Your task to perform on an android device: open app "VLC for Android" (install if not already installed) Image 0: 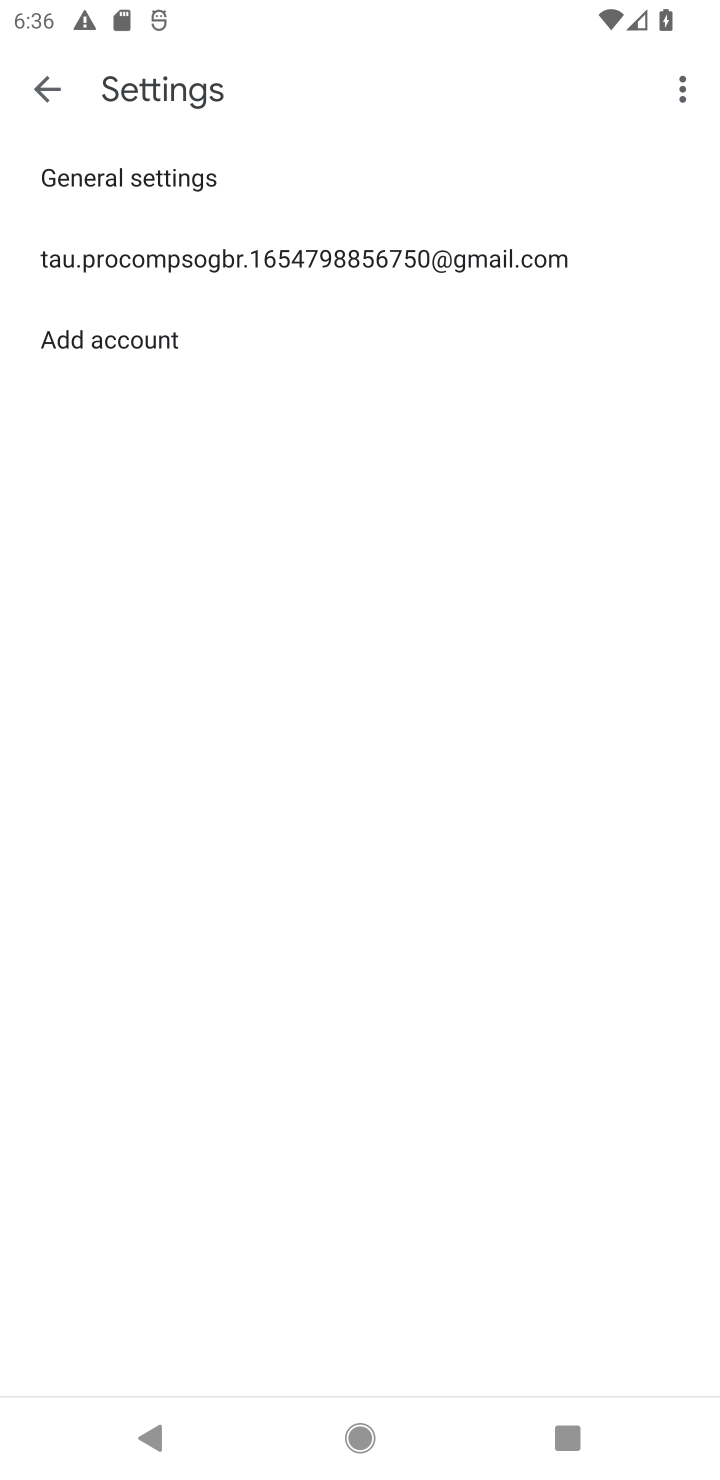
Step 0: press home button
Your task to perform on an android device: open app "VLC for Android" (install if not already installed) Image 1: 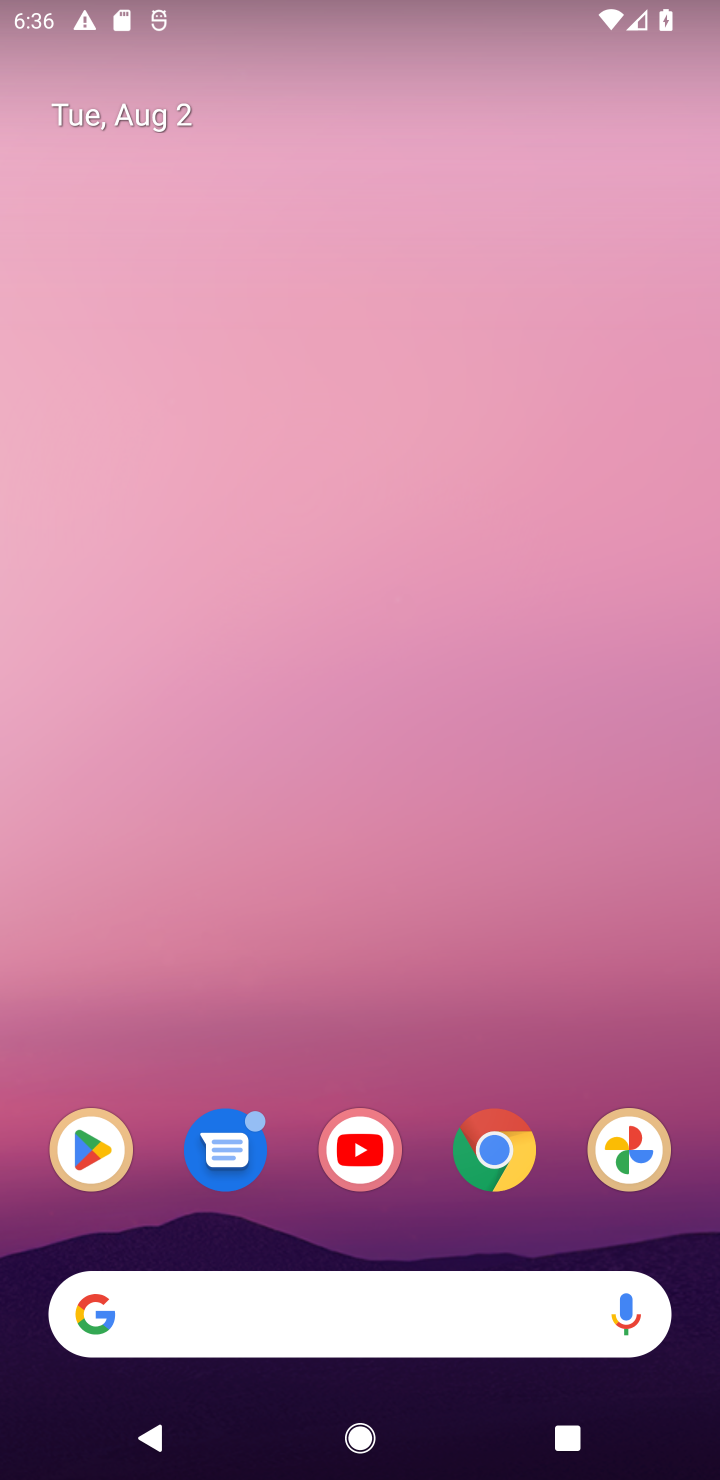
Step 1: drag from (399, 1198) to (346, 4)
Your task to perform on an android device: open app "VLC for Android" (install if not already installed) Image 2: 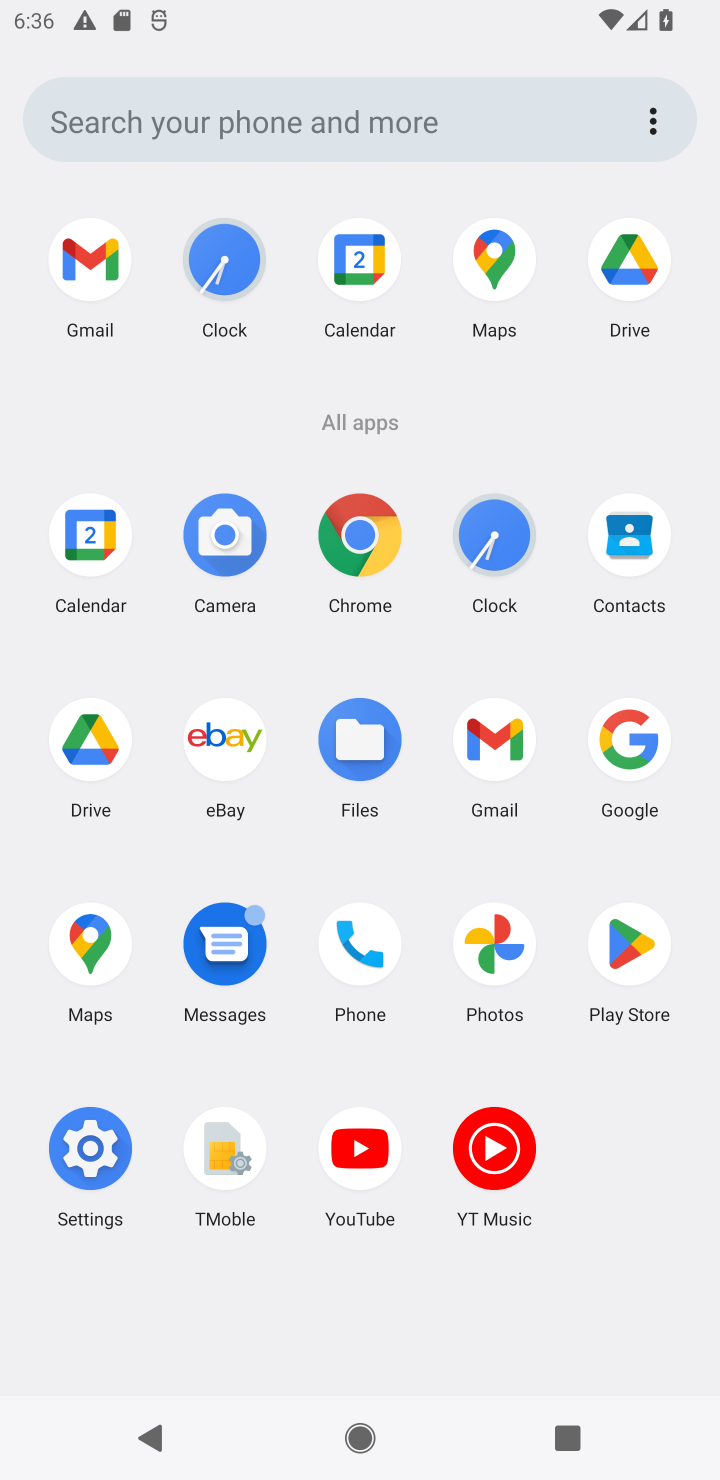
Step 2: click (611, 923)
Your task to perform on an android device: open app "VLC for Android" (install if not already installed) Image 3: 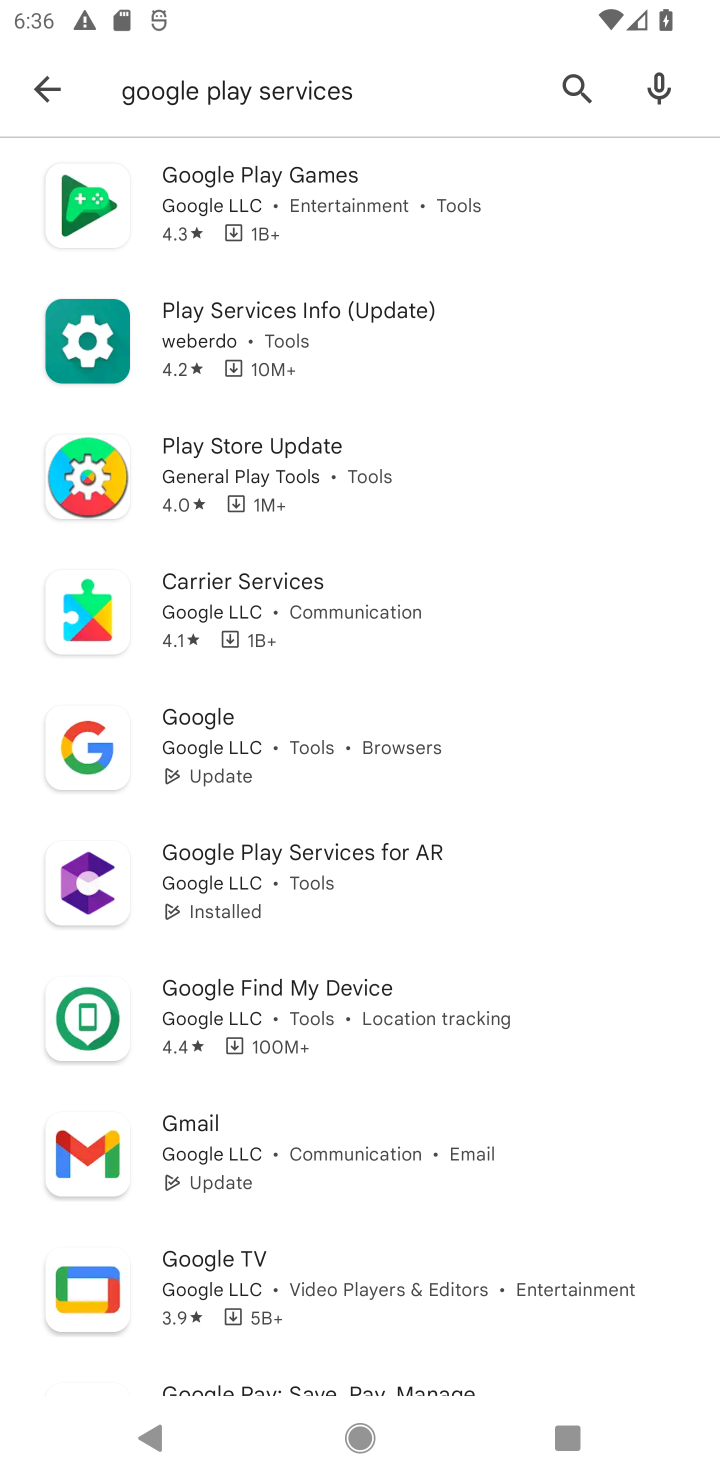
Step 3: click (51, 76)
Your task to perform on an android device: open app "VLC for Android" (install if not already installed) Image 4: 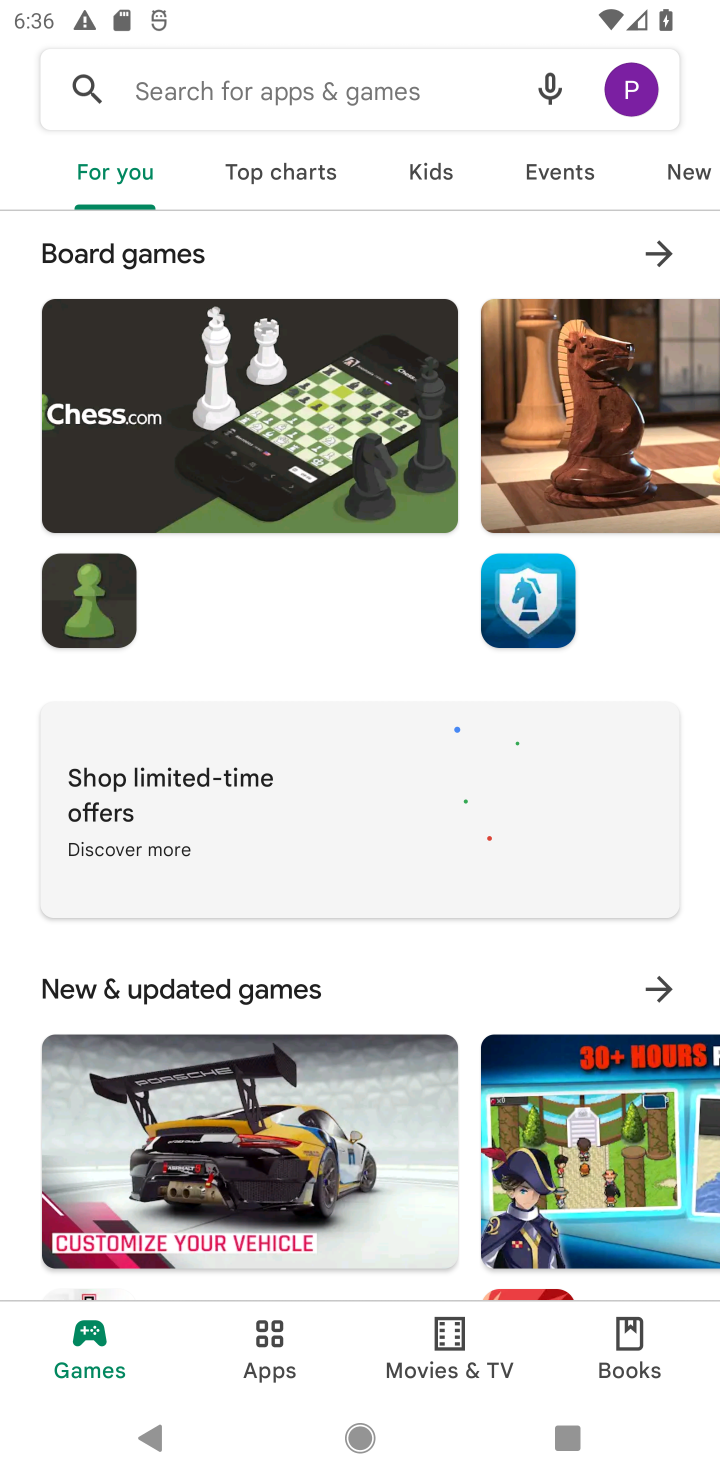
Step 4: click (154, 95)
Your task to perform on an android device: open app "VLC for Android" (install if not already installed) Image 5: 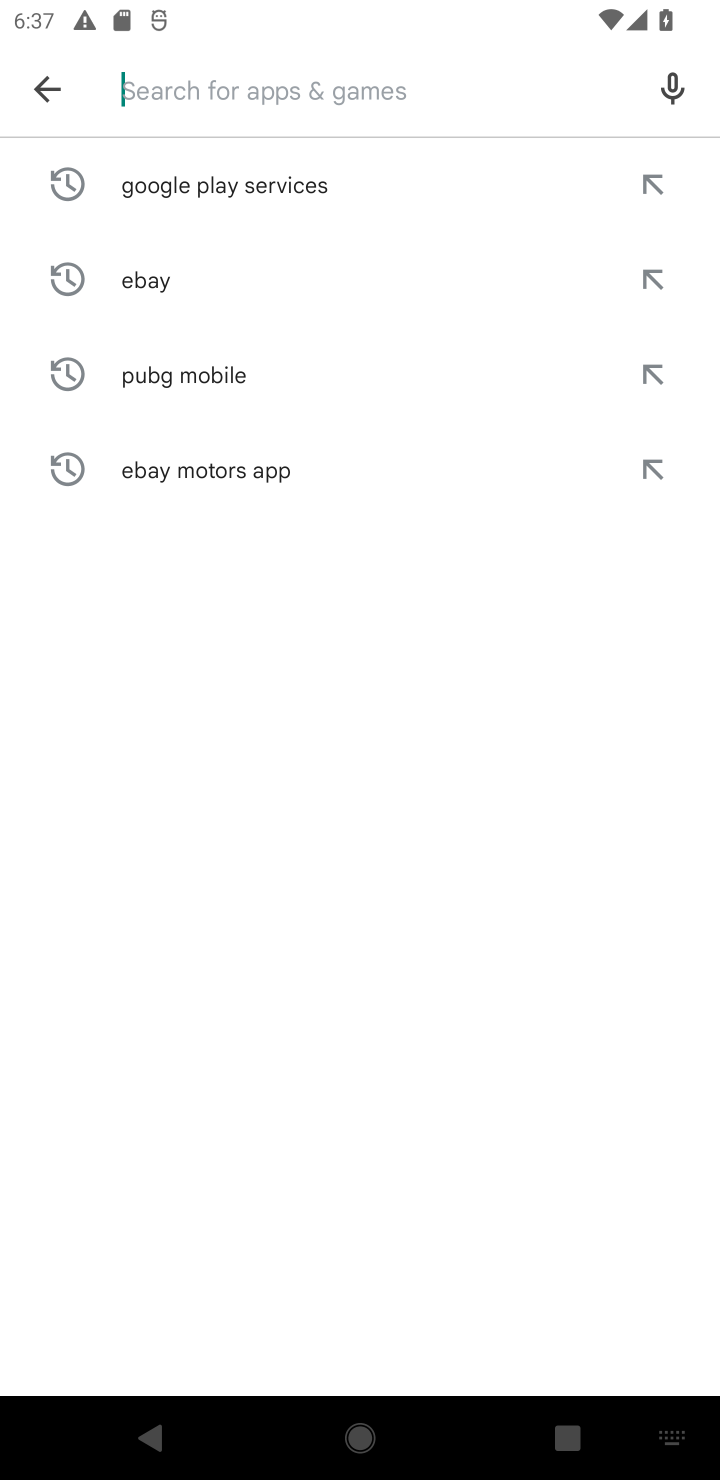
Step 5: type "VLC for Android""
Your task to perform on an android device: open app "VLC for Android" (install if not already installed) Image 6: 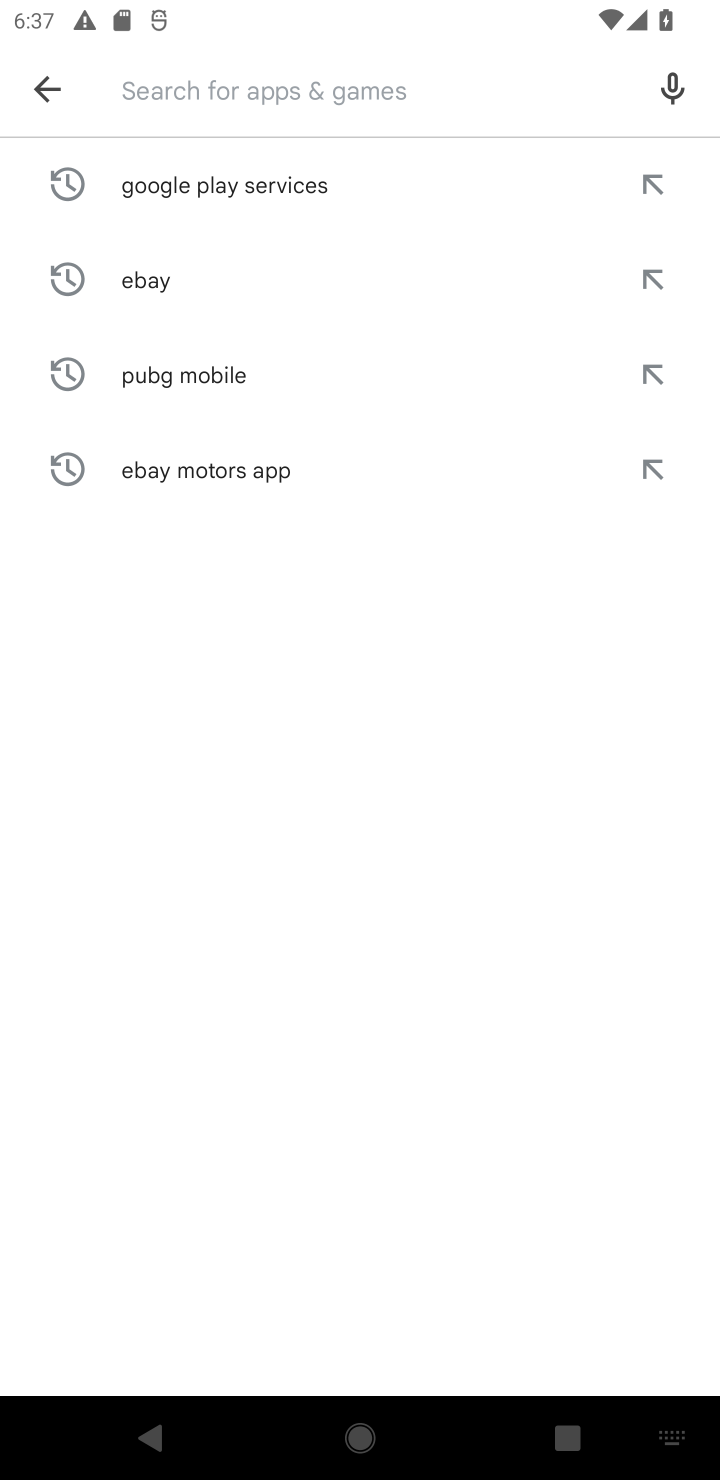
Step 6: type ""
Your task to perform on an android device: open app "VLC for Android" (install if not already installed) Image 7: 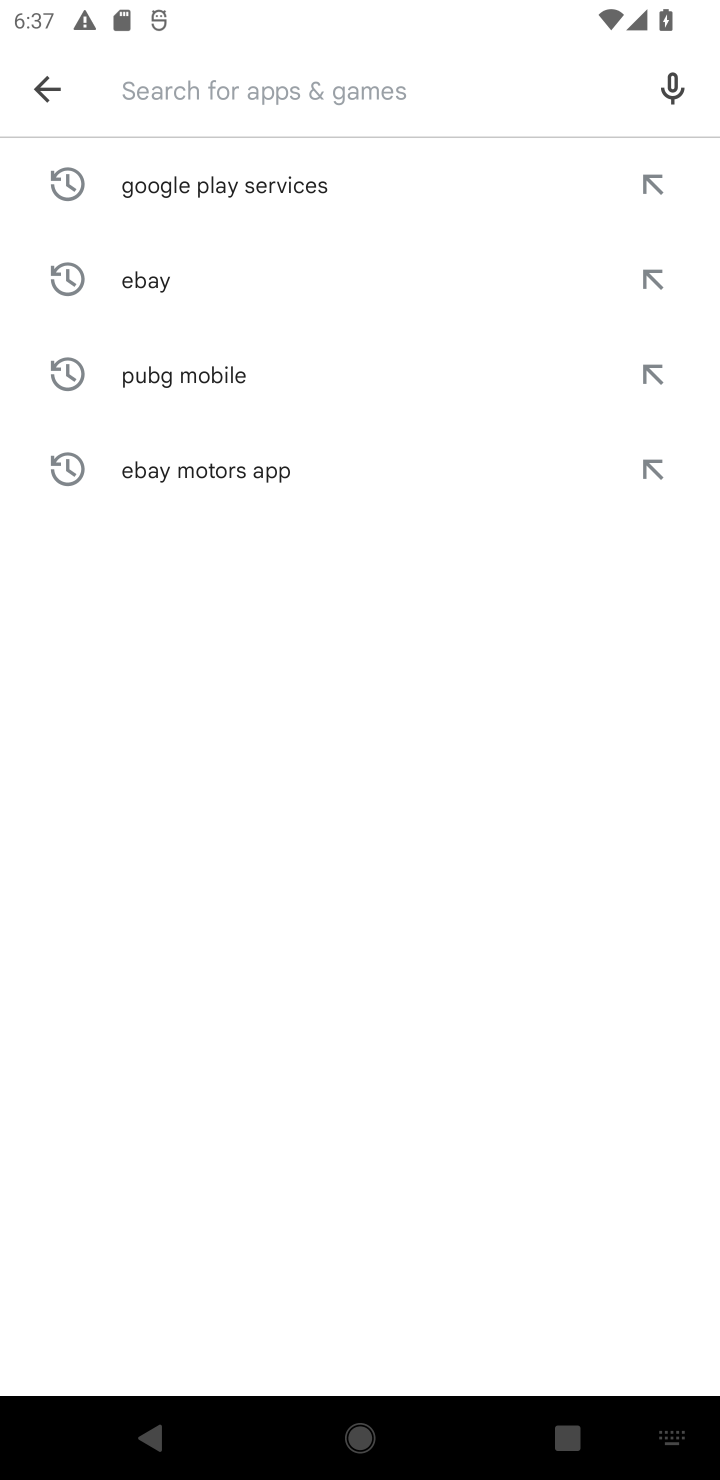
Step 7: type "VLC for Android"
Your task to perform on an android device: open app "VLC for Android" (install if not already installed) Image 8: 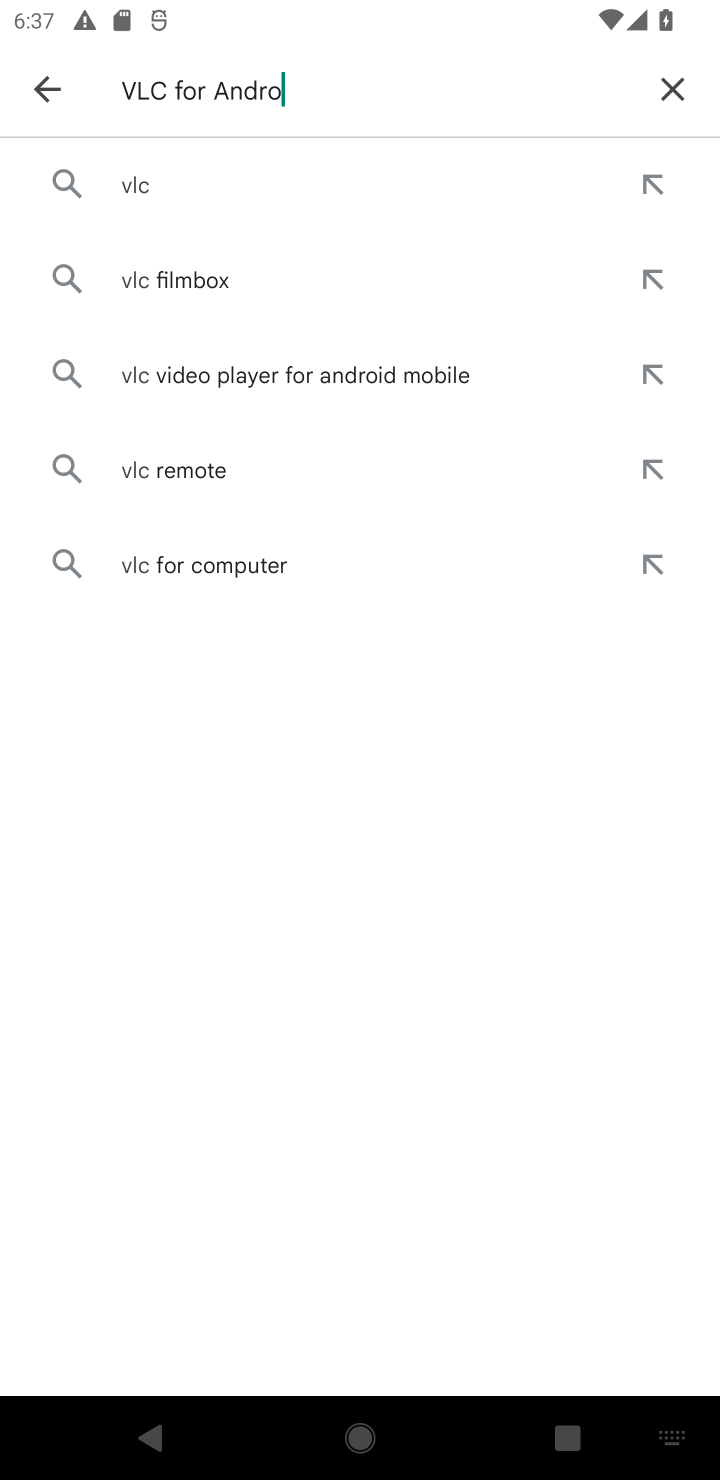
Step 8: type ""
Your task to perform on an android device: open app "VLC for Android" (install if not already installed) Image 9: 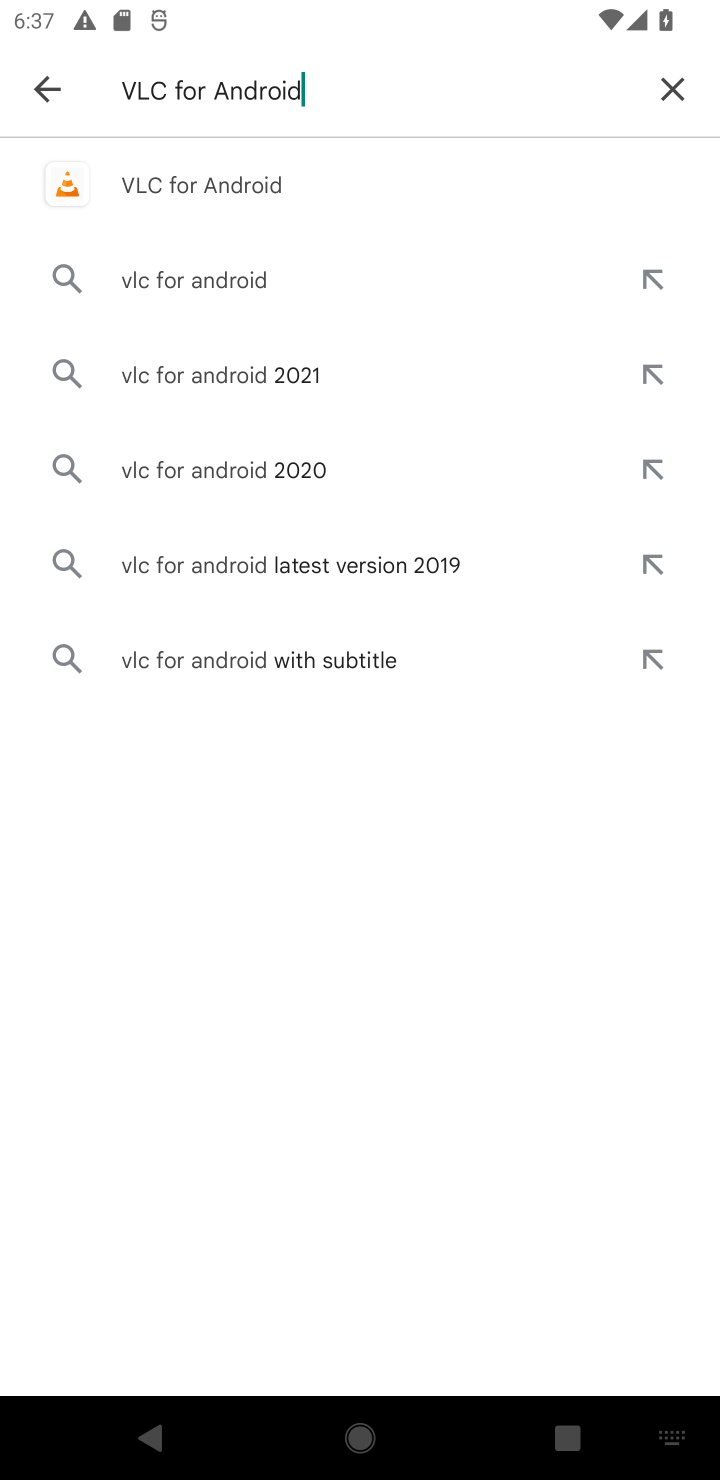
Step 9: click (66, 181)
Your task to perform on an android device: open app "VLC for Android" (install if not already installed) Image 10: 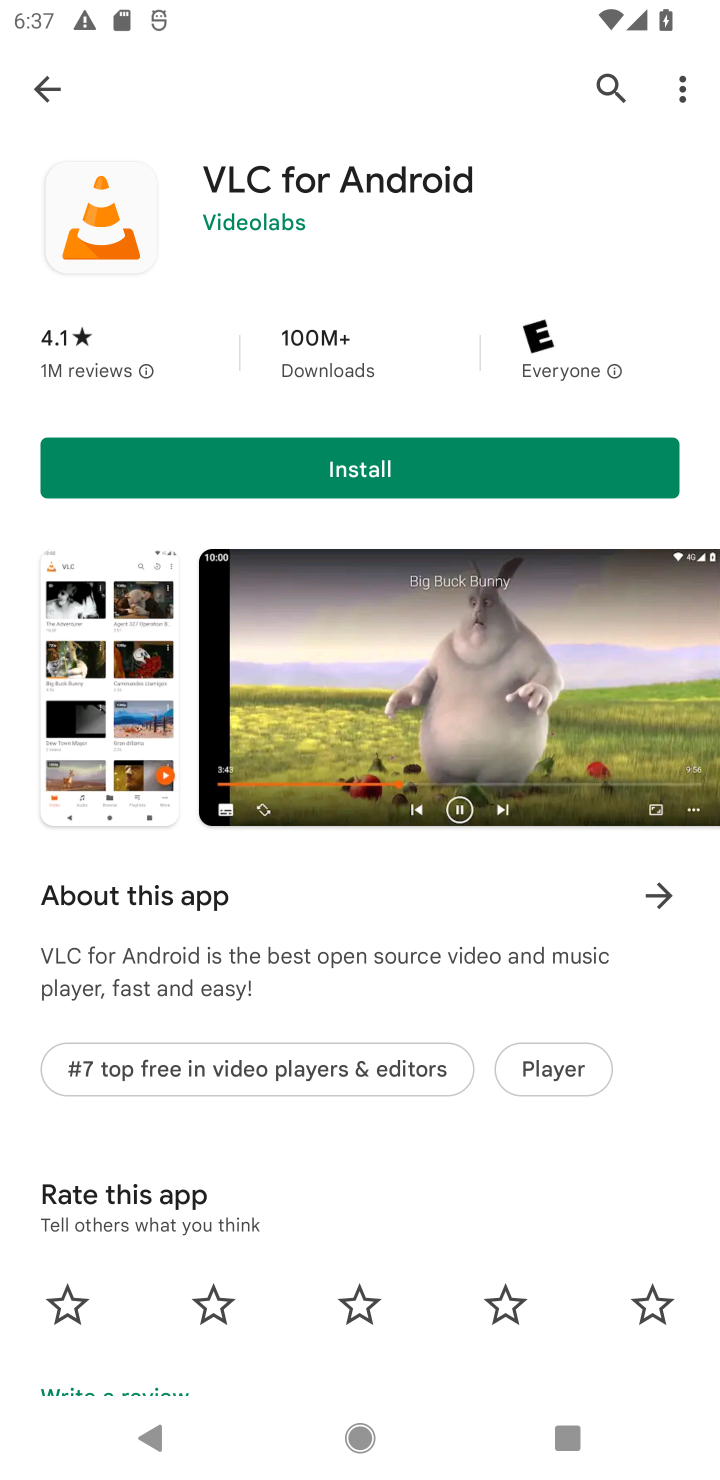
Step 10: click (359, 489)
Your task to perform on an android device: open app "VLC for Android" (install if not already installed) Image 11: 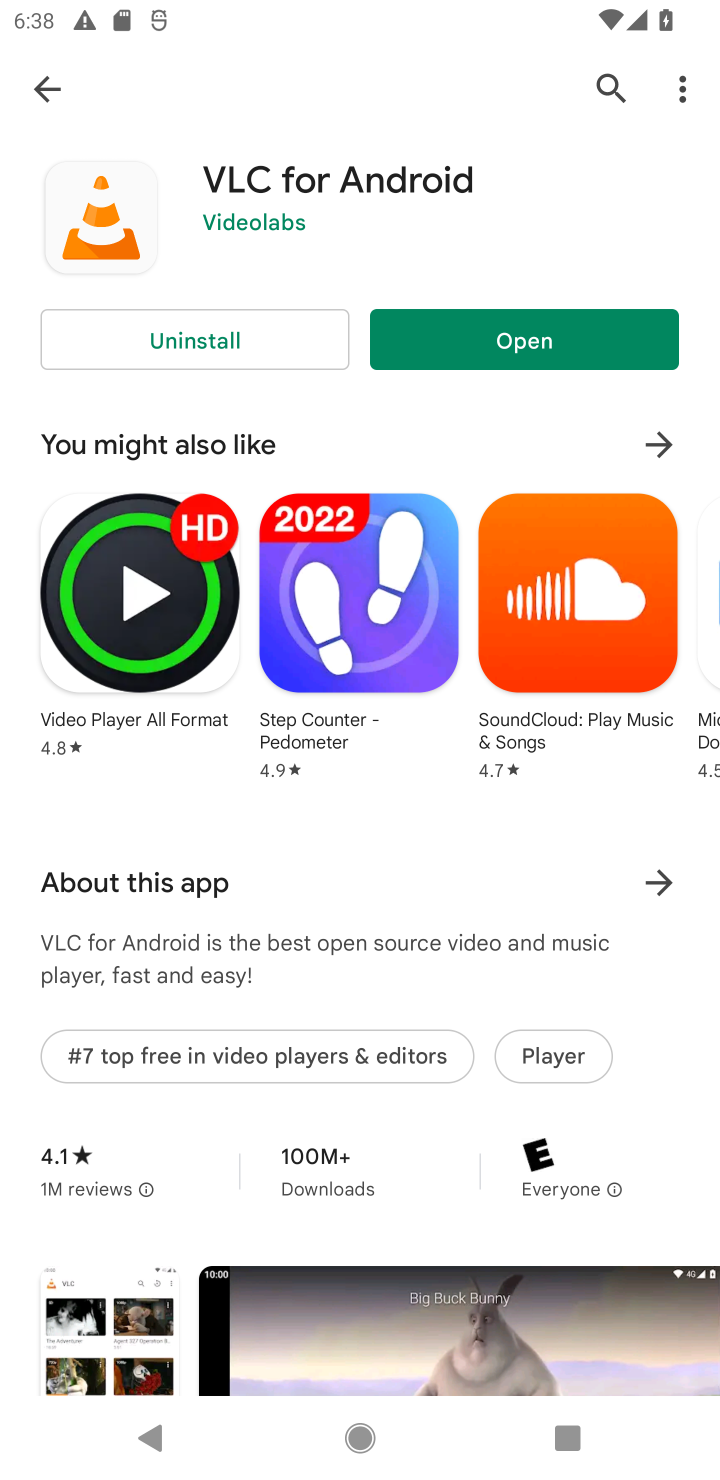
Step 11: click (528, 330)
Your task to perform on an android device: open app "VLC for Android" (install if not already installed) Image 12: 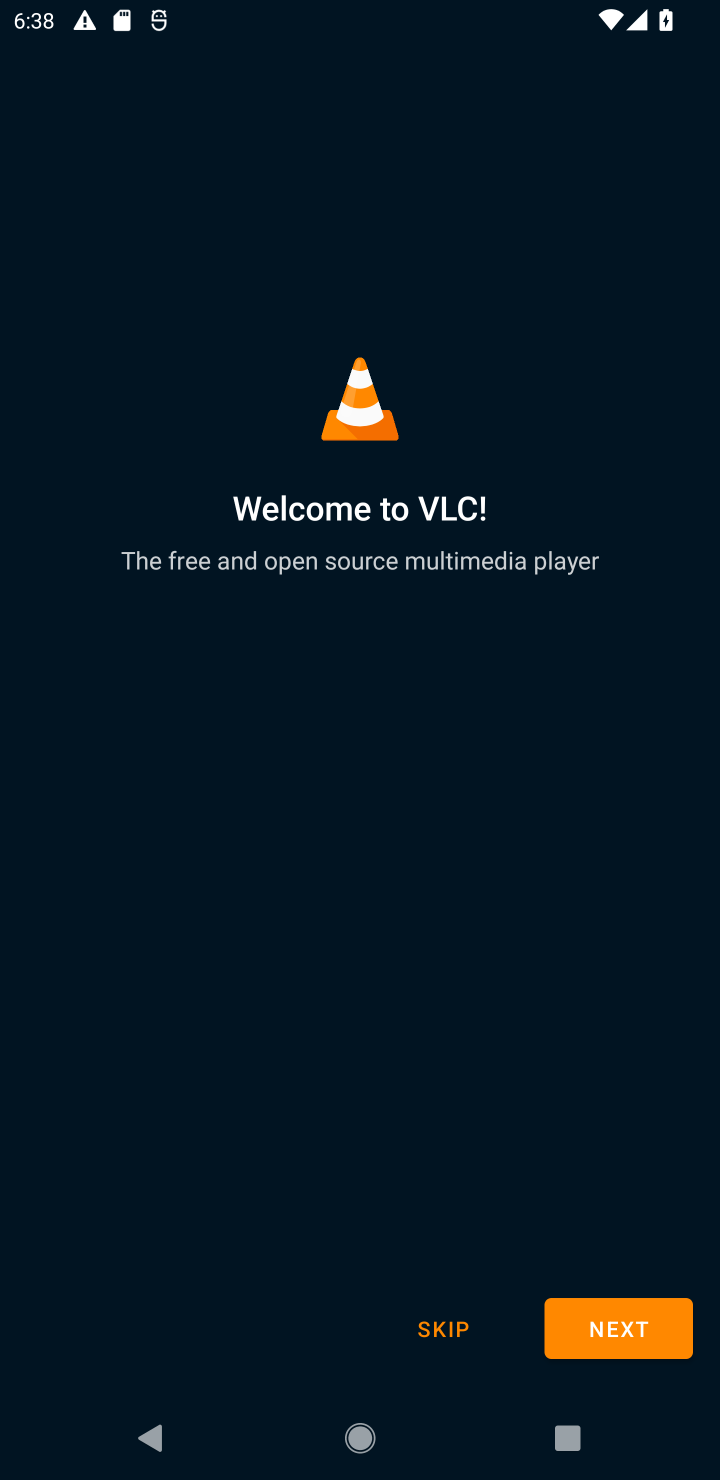
Step 12: click (427, 1324)
Your task to perform on an android device: open app "VLC for Android" (install if not already installed) Image 13: 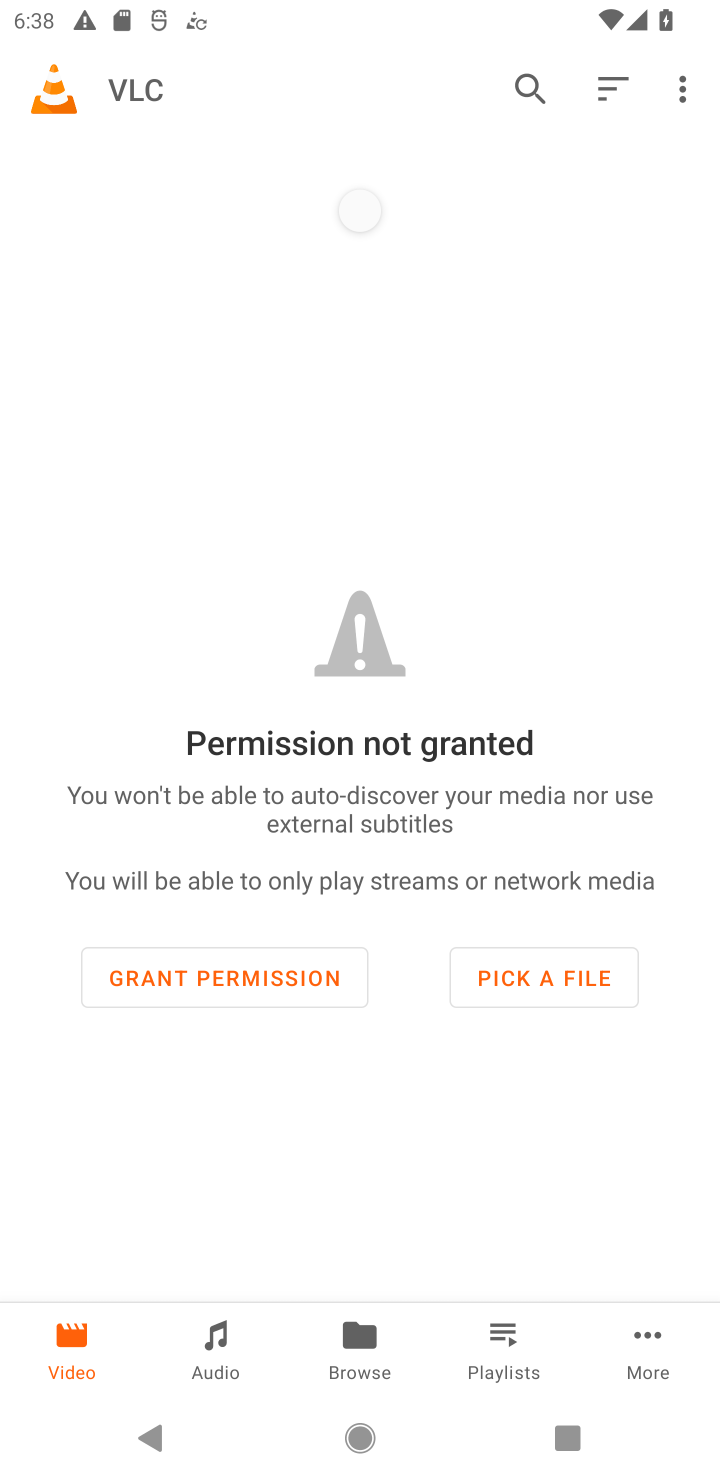
Step 13: task complete